Your task to perform on an android device: change notification settings in the gmail app Image 0: 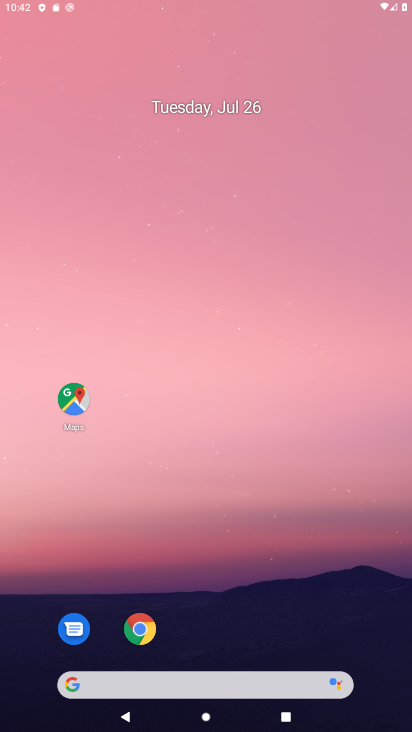
Step 0: press home button
Your task to perform on an android device: change notification settings in the gmail app Image 1: 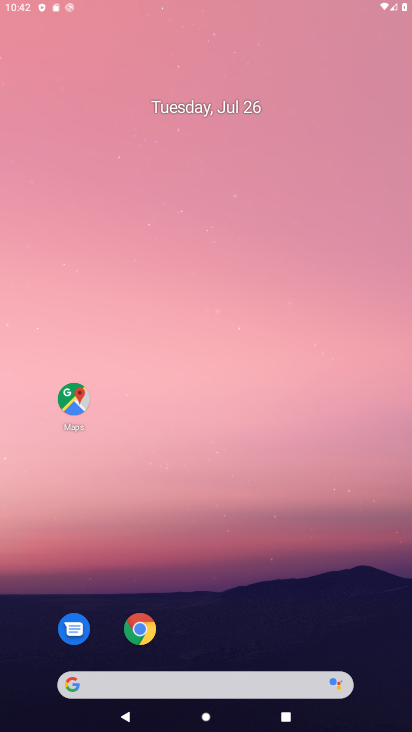
Step 1: drag from (340, 628) to (129, 18)
Your task to perform on an android device: change notification settings in the gmail app Image 2: 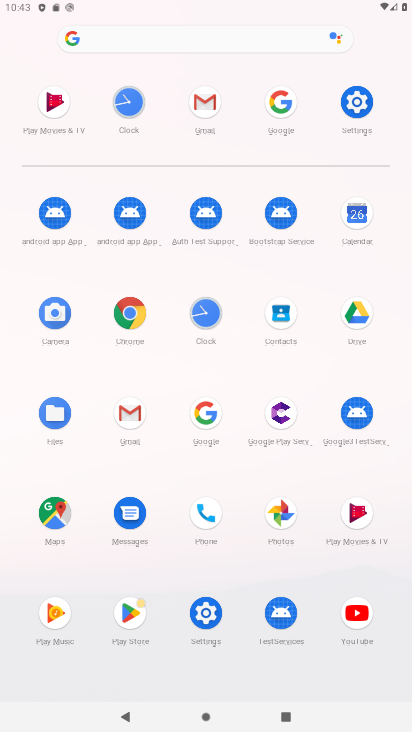
Step 2: click (113, 407)
Your task to perform on an android device: change notification settings in the gmail app Image 3: 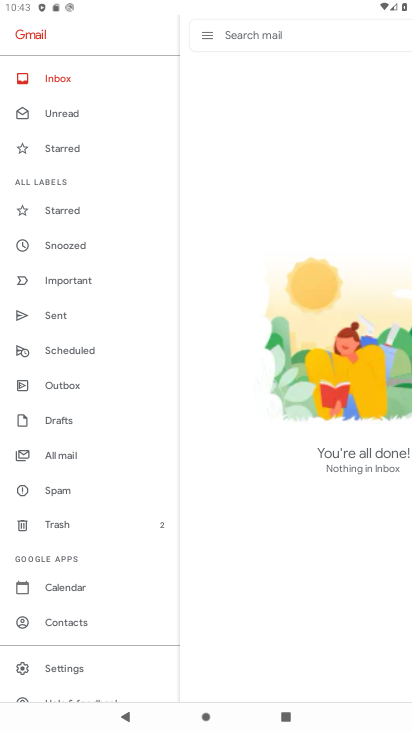
Step 3: drag from (71, 667) to (146, 70)
Your task to perform on an android device: change notification settings in the gmail app Image 4: 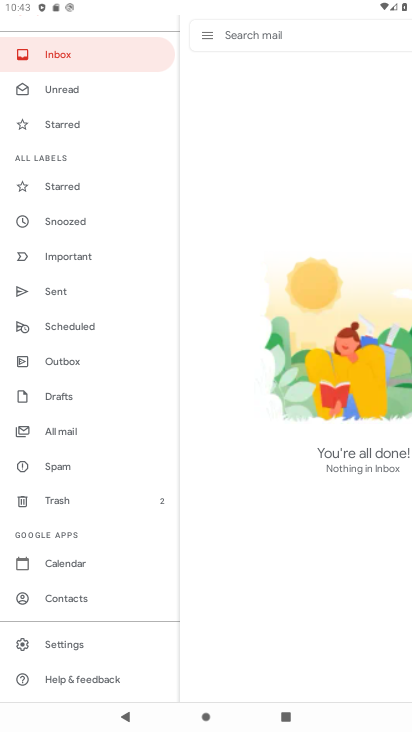
Step 4: click (89, 636)
Your task to perform on an android device: change notification settings in the gmail app Image 5: 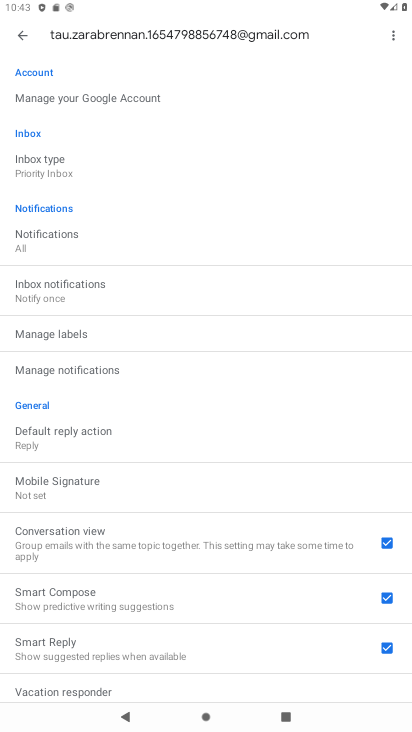
Step 5: click (67, 252)
Your task to perform on an android device: change notification settings in the gmail app Image 6: 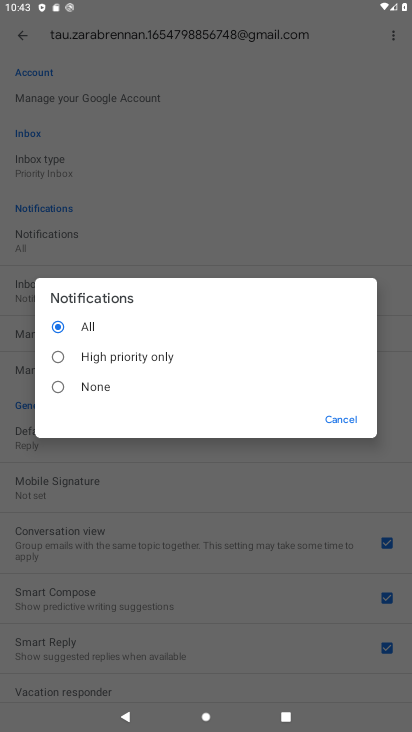
Step 6: click (73, 389)
Your task to perform on an android device: change notification settings in the gmail app Image 7: 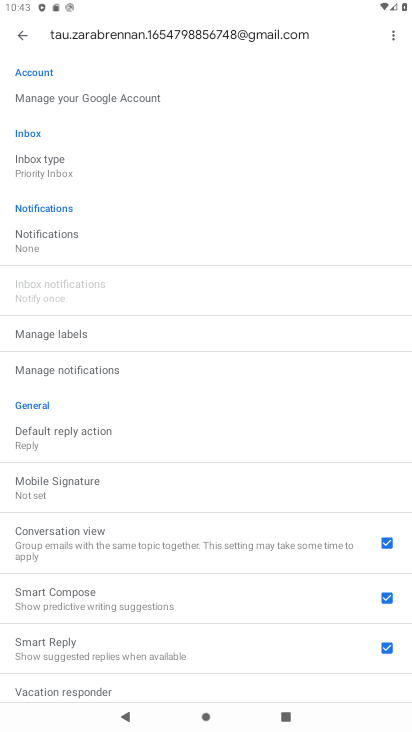
Step 7: task complete